Your task to perform on an android device: empty trash in the gmail app Image 0: 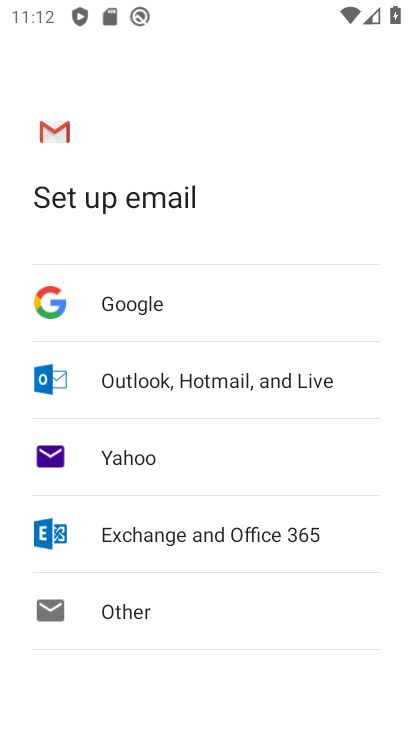
Step 0: press home button
Your task to perform on an android device: empty trash in the gmail app Image 1: 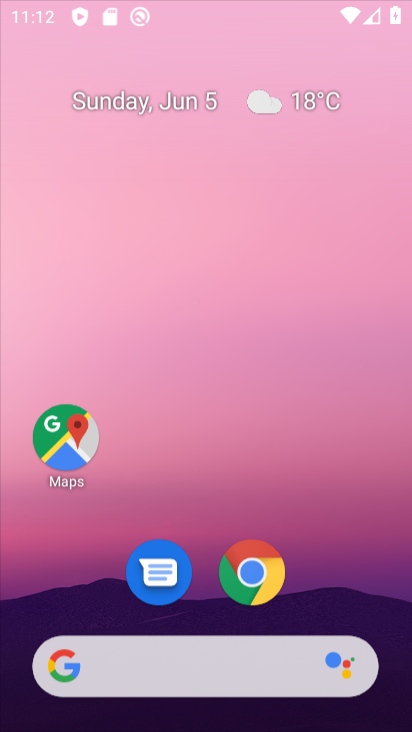
Step 1: press home button
Your task to perform on an android device: empty trash in the gmail app Image 2: 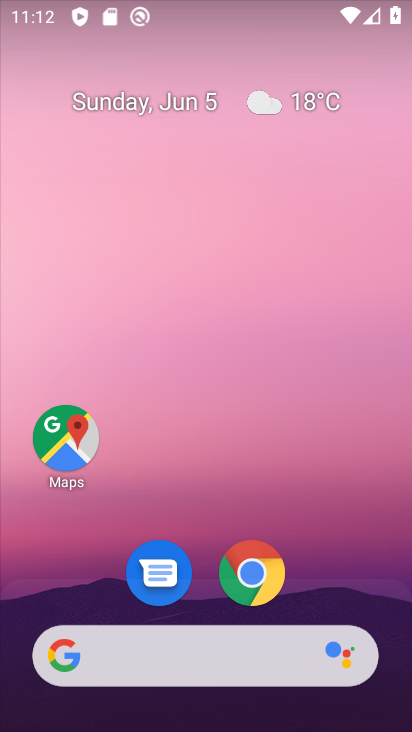
Step 2: drag from (197, 609) to (257, 19)
Your task to perform on an android device: empty trash in the gmail app Image 3: 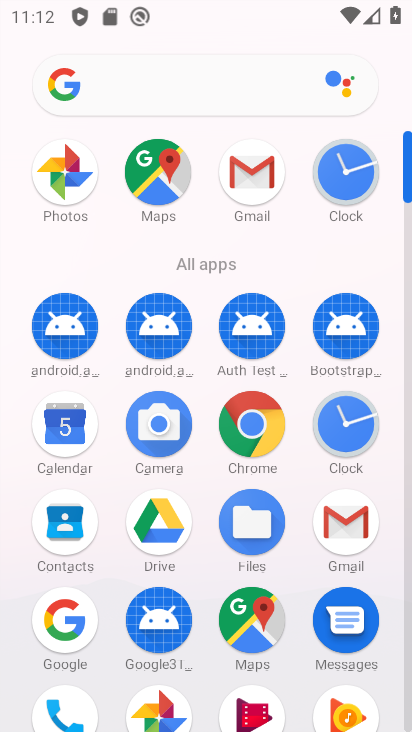
Step 3: click (348, 529)
Your task to perform on an android device: empty trash in the gmail app Image 4: 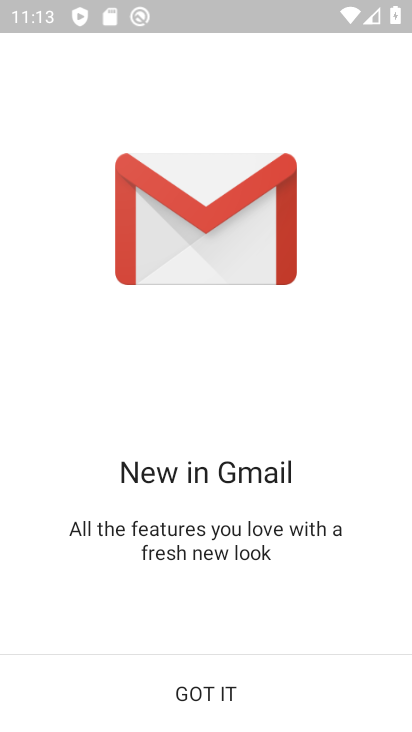
Step 4: click (224, 678)
Your task to perform on an android device: empty trash in the gmail app Image 5: 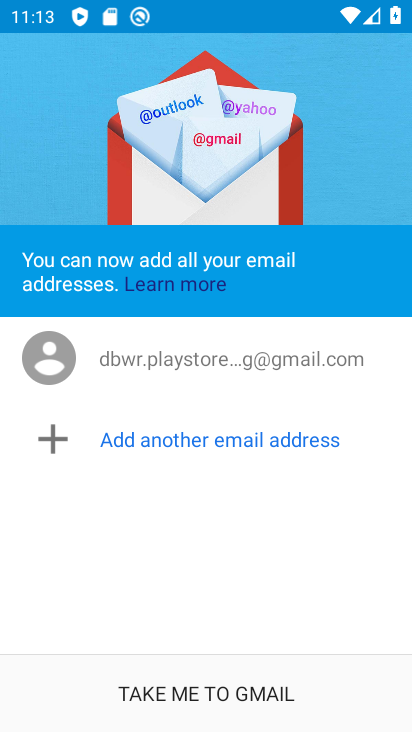
Step 5: click (274, 687)
Your task to perform on an android device: empty trash in the gmail app Image 6: 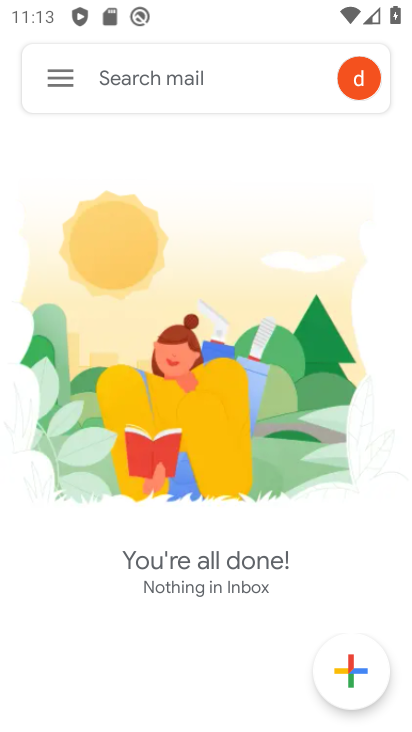
Step 6: click (79, 74)
Your task to perform on an android device: empty trash in the gmail app Image 7: 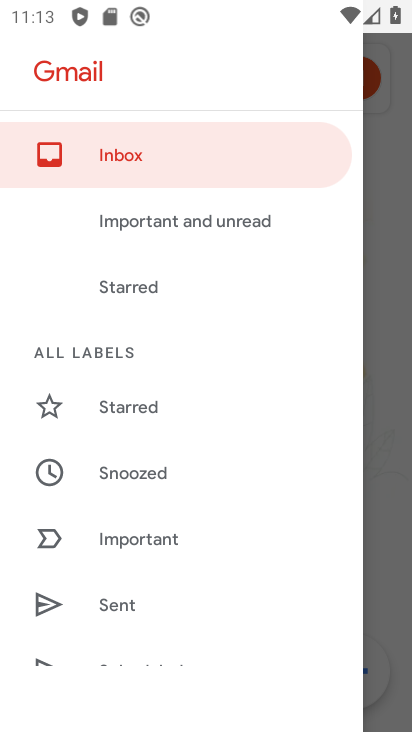
Step 7: drag from (141, 531) to (187, 249)
Your task to perform on an android device: empty trash in the gmail app Image 8: 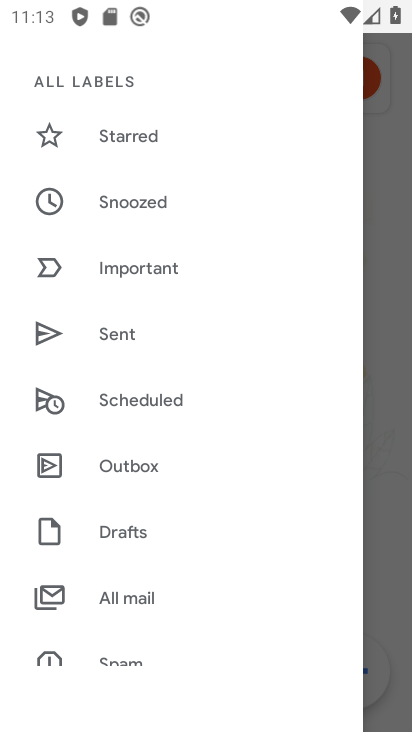
Step 8: drag from (106, 610) to (211, 216)
Your task to perform on an android device: empty trash in the gmail app Image 9: 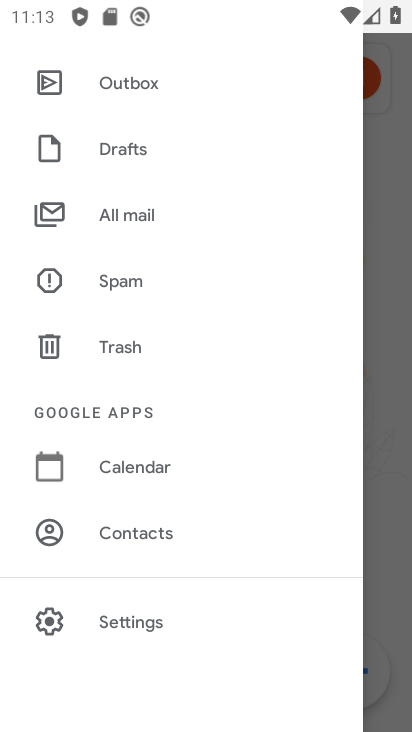
Step 9: click (135, 362)
Your task to perform on an android device: empty trash in the gmail app Image 10: 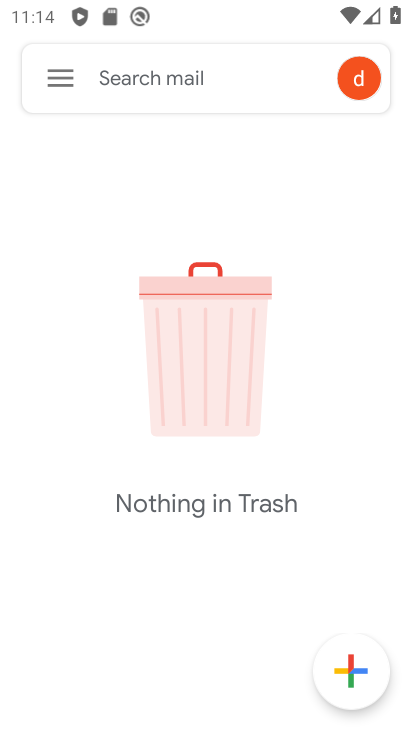
Step 10: task complete